Your task to perform on an android device: Open sound settings Image 0: 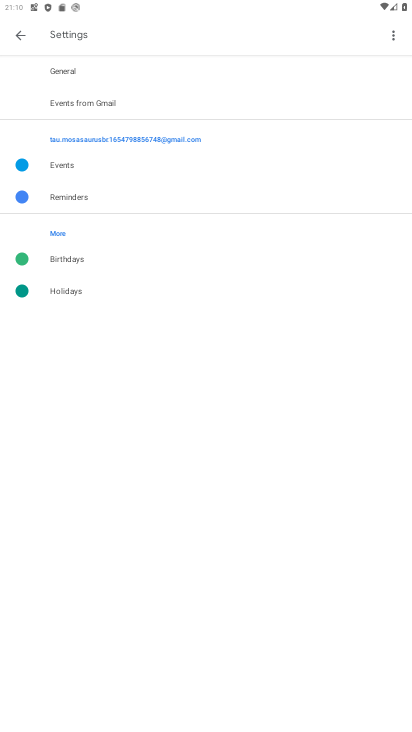
Step 0: press home button
Your task to perform on an android device: Open sound settings Image 1: 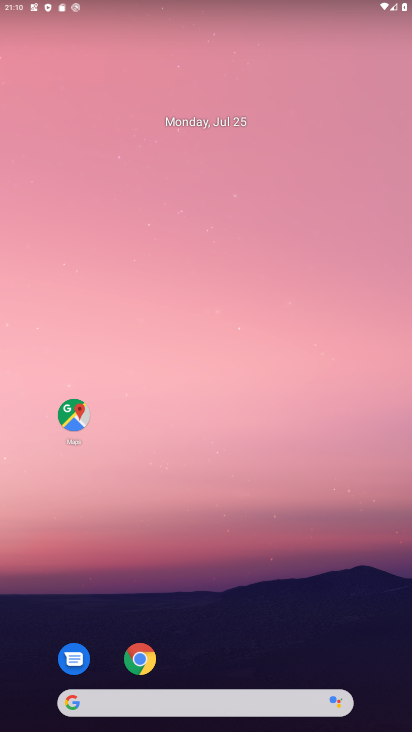
Step 1: drag from (233, 650) to (279, 224)
Your task to perform on an android device: Open sound settings Image 2: 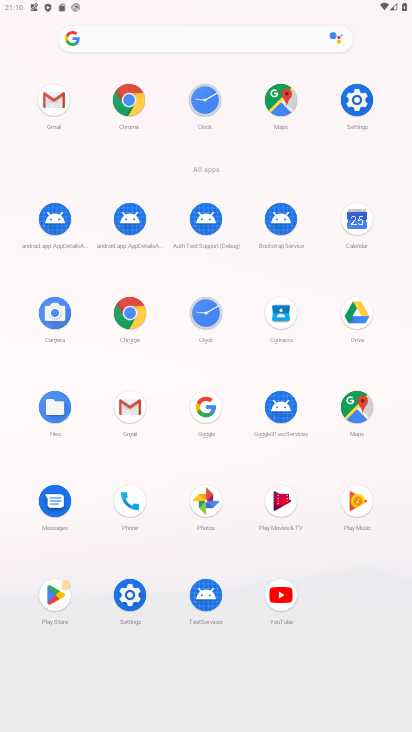
Step 2: click (363, 110)
Your task to perform on an android device: Open sound settings Image 3: 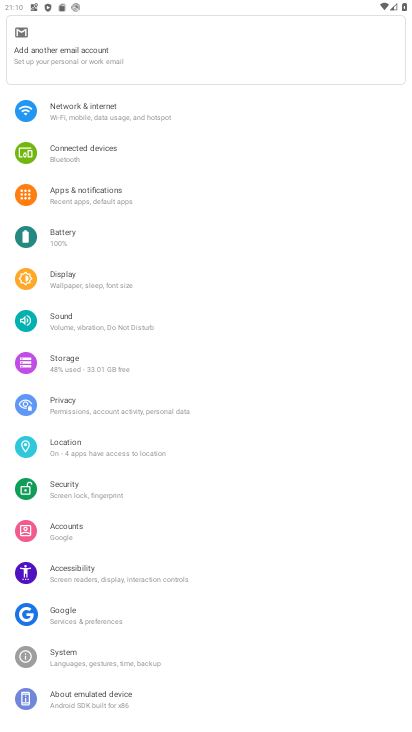
Step 3: click (114, 320)
Your task to perform on an android device: Open sound settings Image 4: 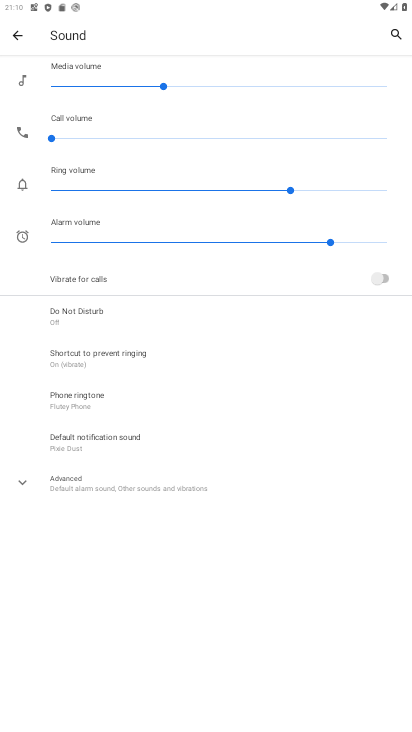
Step 4: task complete